Your task to perform on an android device: Play the last video I watched on Youtube Image 0: 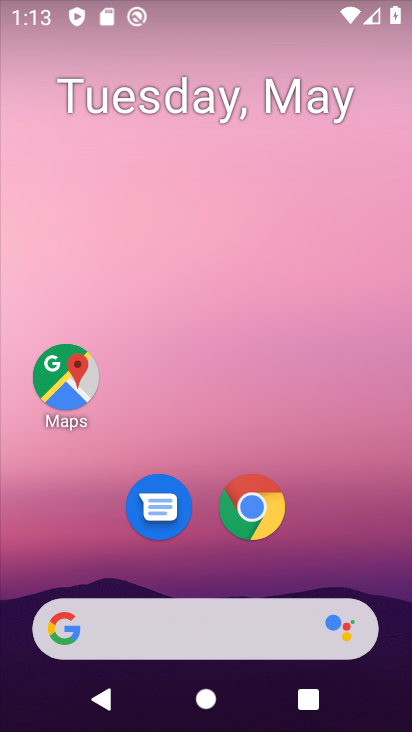
Step 0: drag from (367, 567) to (304, 153)
Your task to perform on an android device: Play the last video I watched on Youtube Image 1: 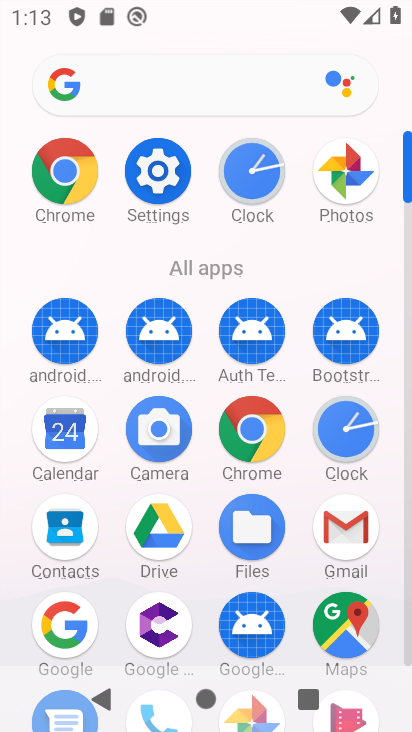
Step 1: click (405, 661)
Your task to perform on an android device: Play the last video I watched on Youtube Image 2: 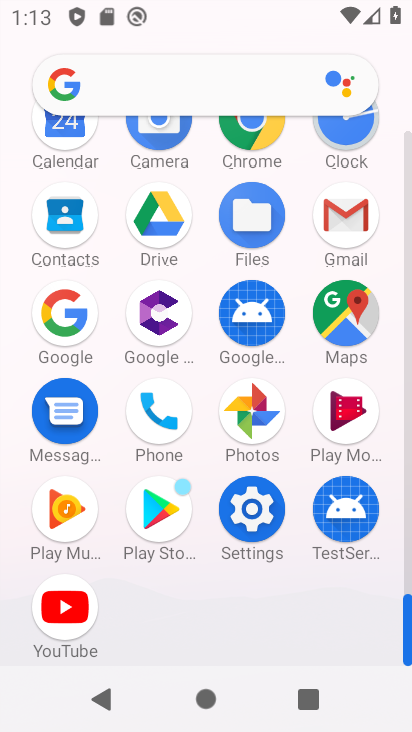
Step 2: click (54, 622)
Your task to perform on an android device: Play the last video I watched on Youtube Image 3: 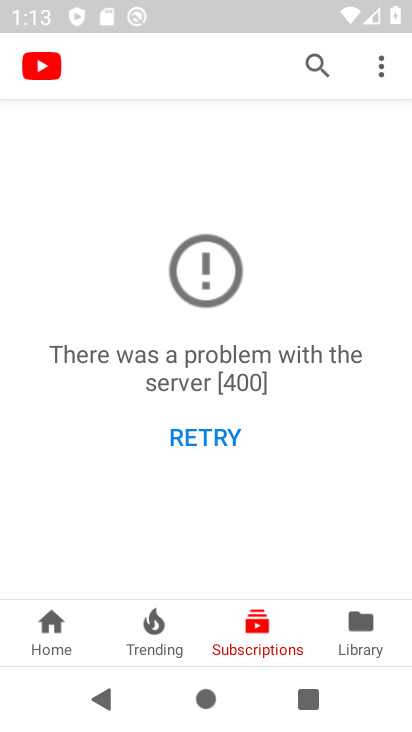
Step 3: click (366, 635)
Your task to perform on an android device: Play the last video I watched on Youtube Image 4: 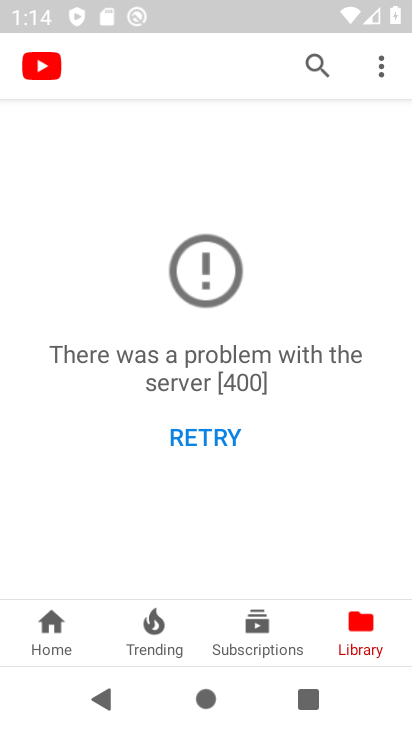
Step 4: task complete